Your task to perform on an android device: Go to Amazon Image 0: 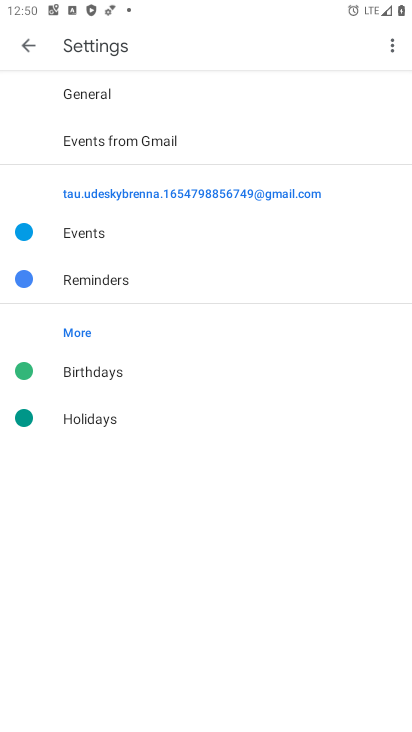
Step 0: press home button
Your task to perform on an android device: Go to Amazon Image 1: 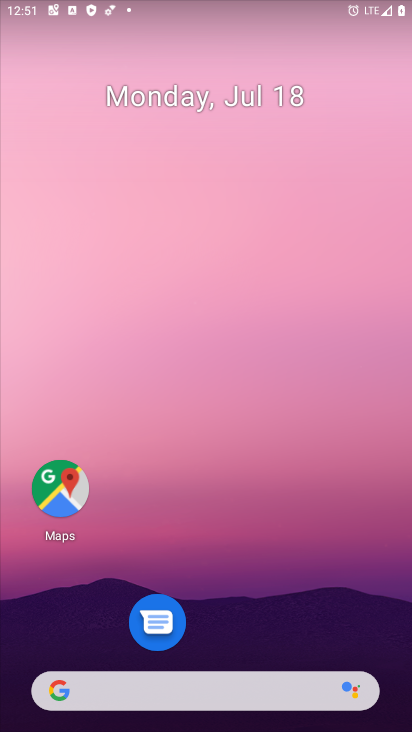
Step 1: drag from (182, 715) to (231, 92)
Your task to perform on an android device: Go to Amazon Image 2: 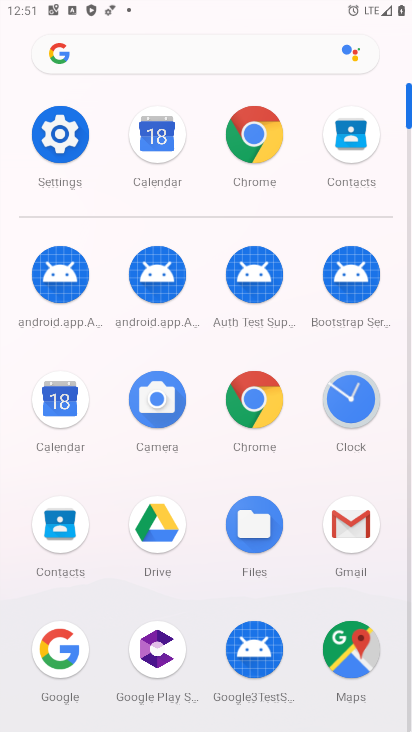
Step 2: click (246, 150)
Your task to perform on an android device: Go to Amazon Image 3: 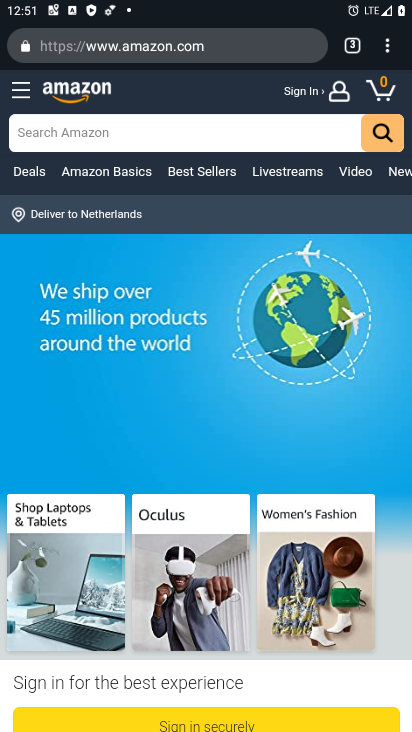
Step 3: task complete